Your task to perform on an android device: turn on showing notifications on the lock screen Image 0: 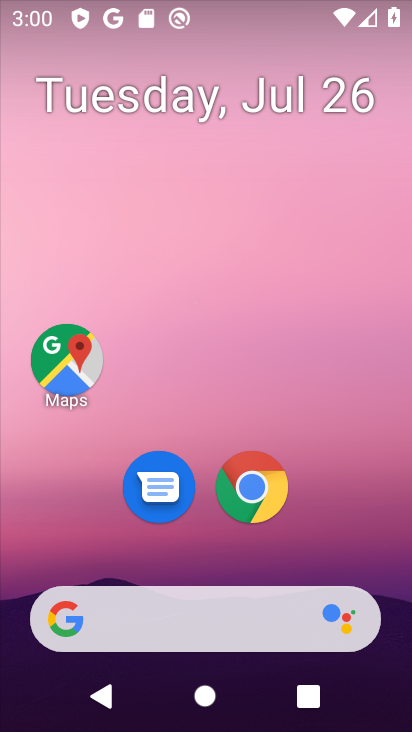
Step 0: drag from (189, 542) to (280, 8)
Your task to perform on an android device: turn on showing notifications on the lock screen Image 1: 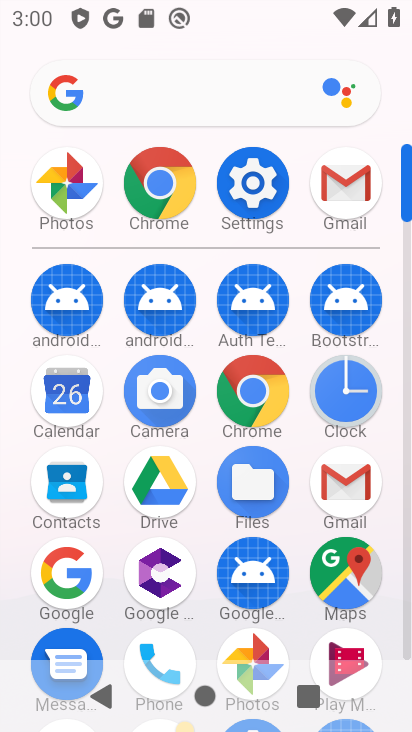
Step 1: click (237, 164)
Your task to perform on an android device: turn on showing notifications on the lock screen Image 2: 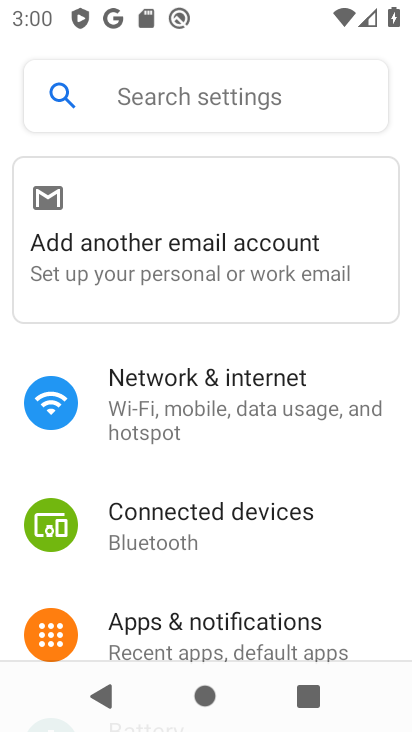
Step 2: click (179, 621)
Your task to perform on an android device: turn on showing notifications on the lock screen Image 3: 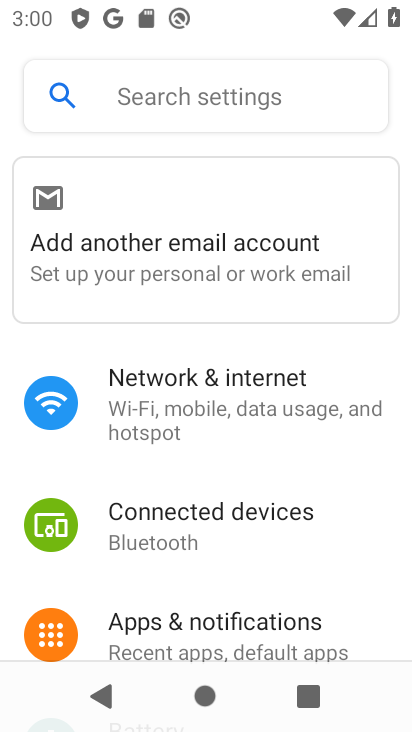
Step 3: drag from (179, 621) to (295, 64)
Your task to perform on an android device: turn on showing notifications on the lock screen Image 4: 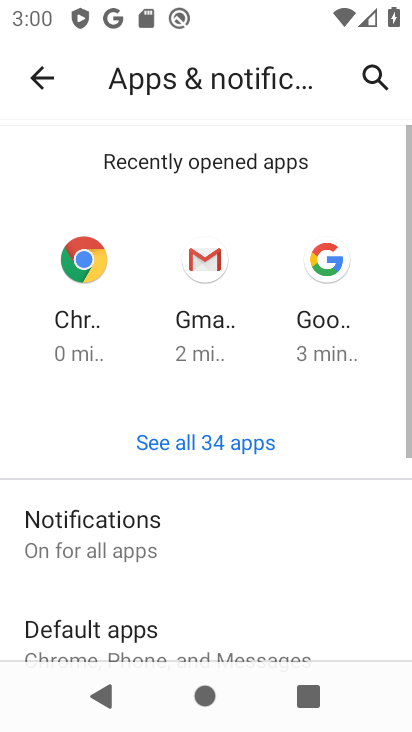
Step 4: drag from (180, 621) to (304, 179)
Your task to perform on an android device: turn on showing notifications on the lock screen Image 5: 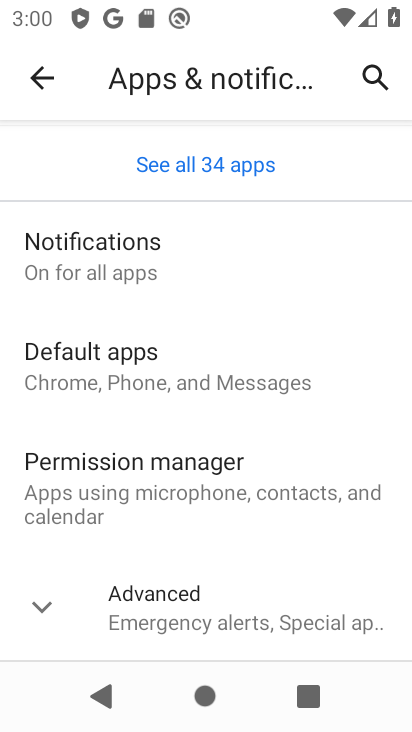
Step 5: click (195, 623)
Your task to perform on an android device: turn on showing notifications on the lock screen Image 6: 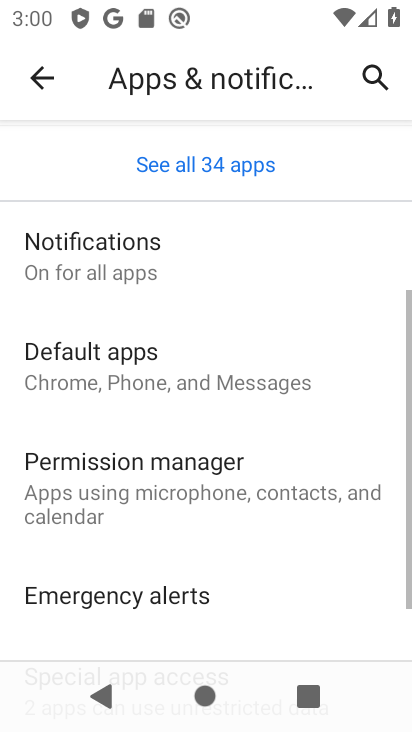
Step 6: drag from (204, 611) to (165, 582)
Your task to perform on an android device: turn on showing notifications on the lock screen Image 7: 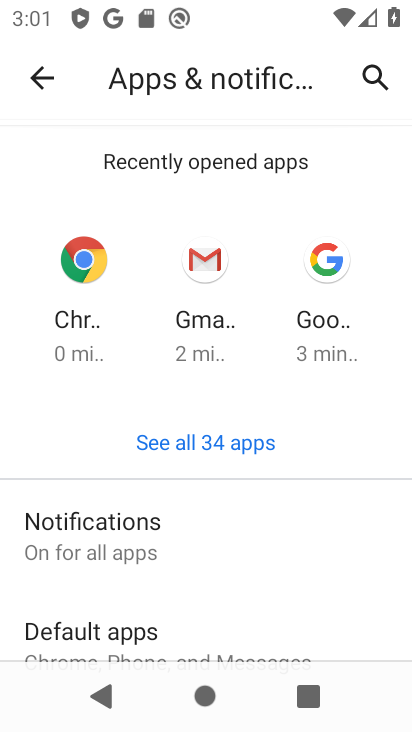
Step 7: click (83, 539)
Your task to perform on an android device: turn on showing notifications on the lock screen Image 8: 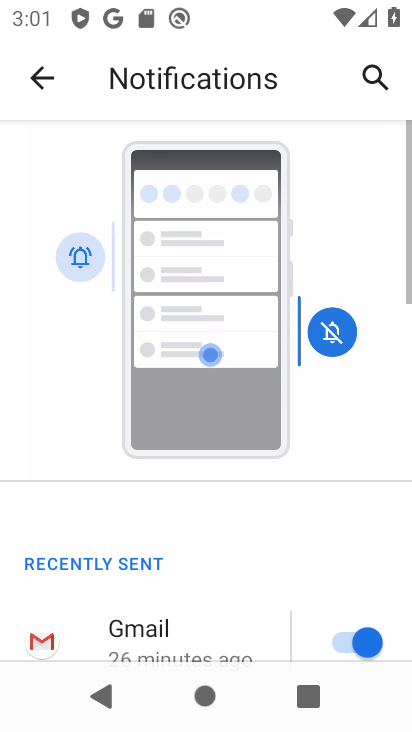
Step 8: drag from (264, 567) to (314, 0)
Your task to perform on an android device: turn on showing notifications on the lock screen Image 9: 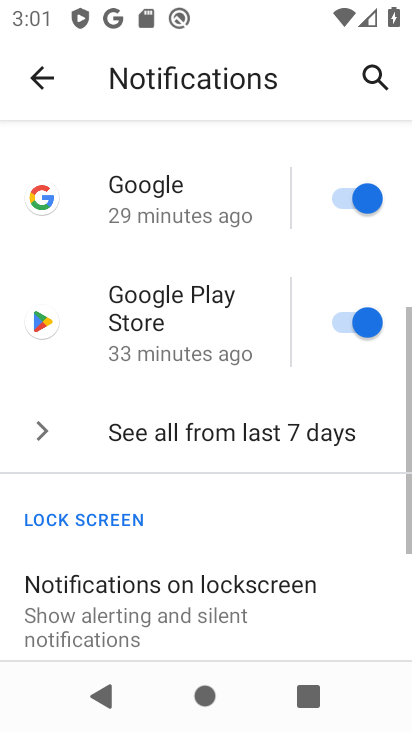
Step 9: click (209, 619)
Your task to perform on an android device: turn on showing notifications on the lock screen Image 10: 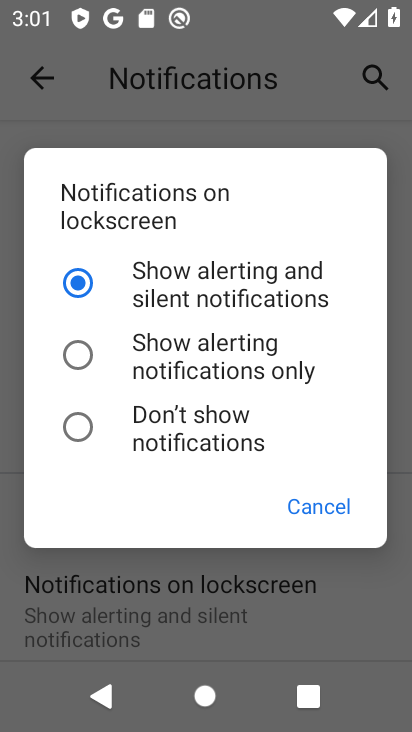
Step 10: click (148, 280)
Your task to perform on an android device: turn on showing notifications on the lock screen Image 11: 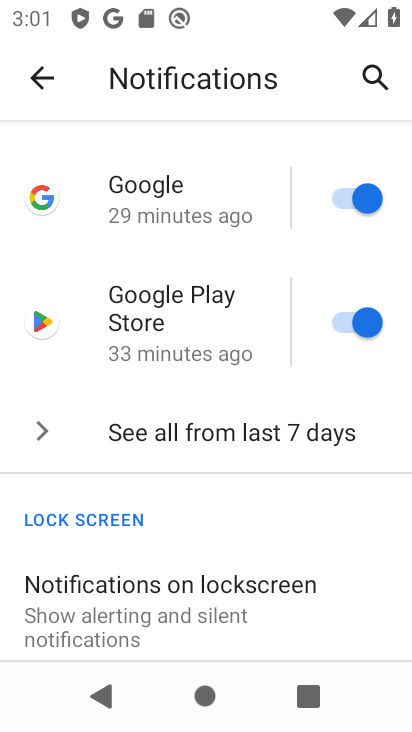
Step 11: task complete